Your task to perform on an android device: Go to Google maps Image 0: 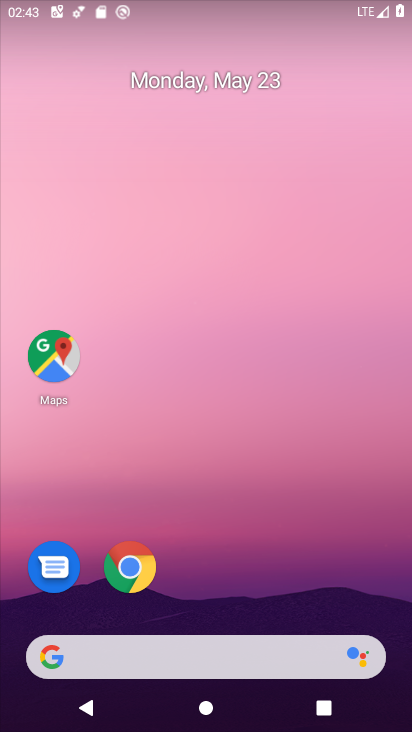
Step 0: drag from (204, 590) to (224, 181)
Your task to perform on an android device: Go to Google maps Image 1: 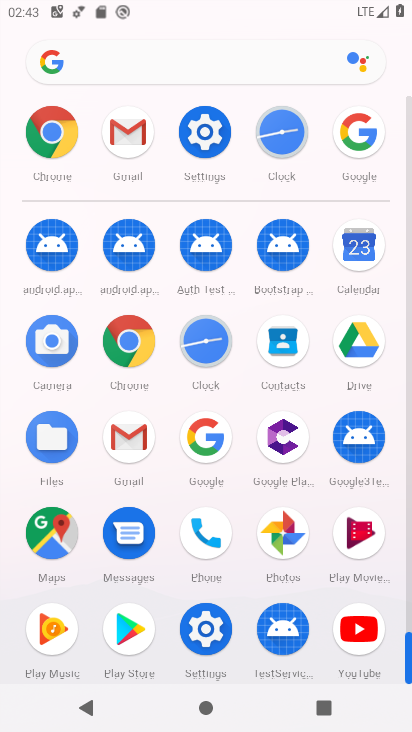
Step 1: click (53, 555)
Your task to perform on an android device: Go to Google maps Image 2: 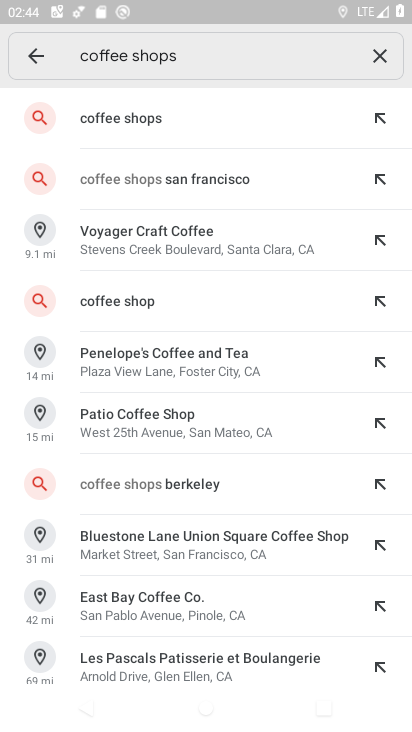
Step 2: task complete